Your task to perform on an android device: Open the downloads Image 0: 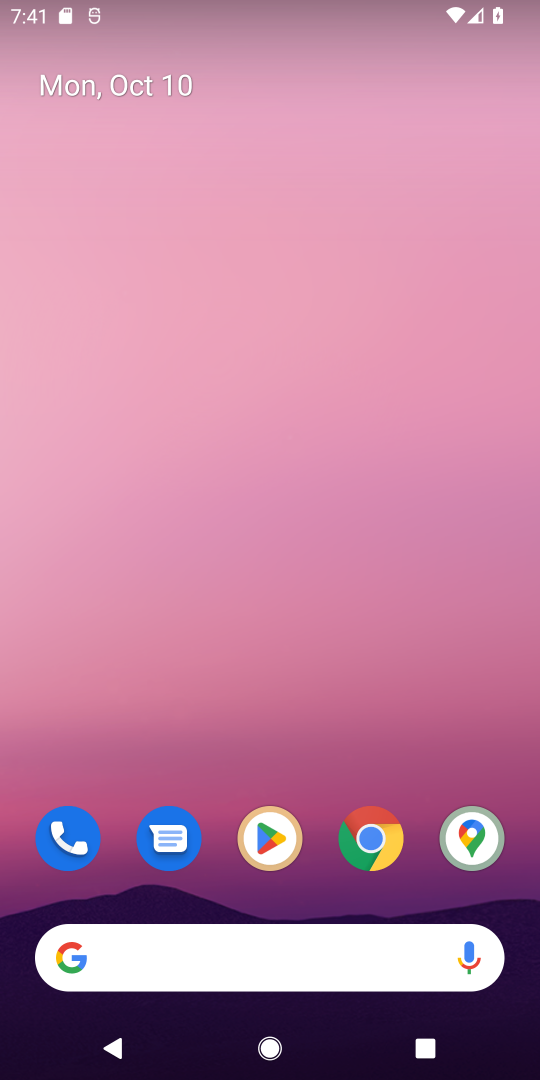
Step 0: click (373, 844)
Your task to perform on an android device: Open the downloads Image 1: 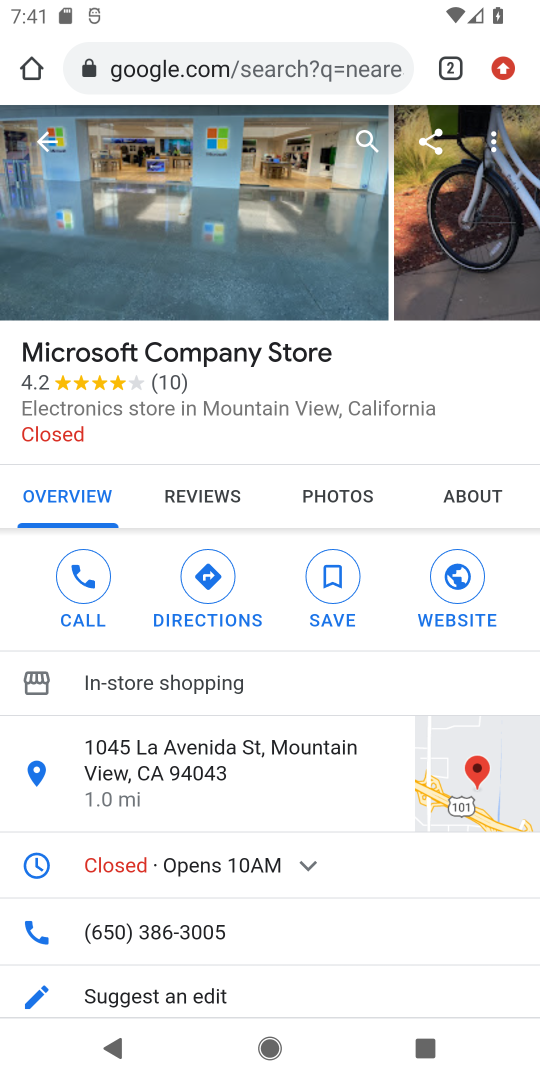
Step 1: click (499, 66)
Your task to perform on an android device: Open the downloads Image 2: 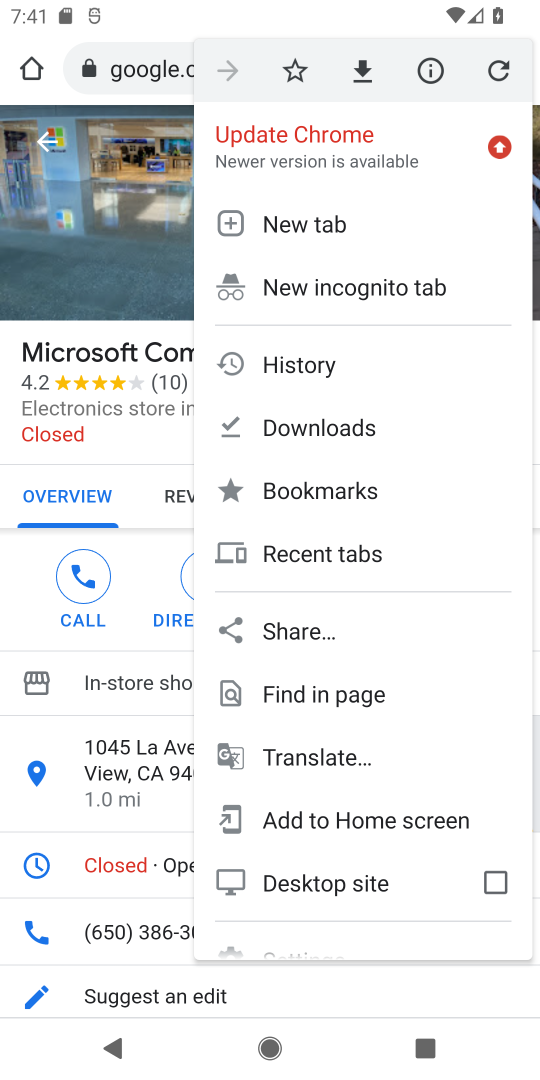
Step 2: click (296, 422)
Your task to perform on an android device: Open the downloads Image 3: 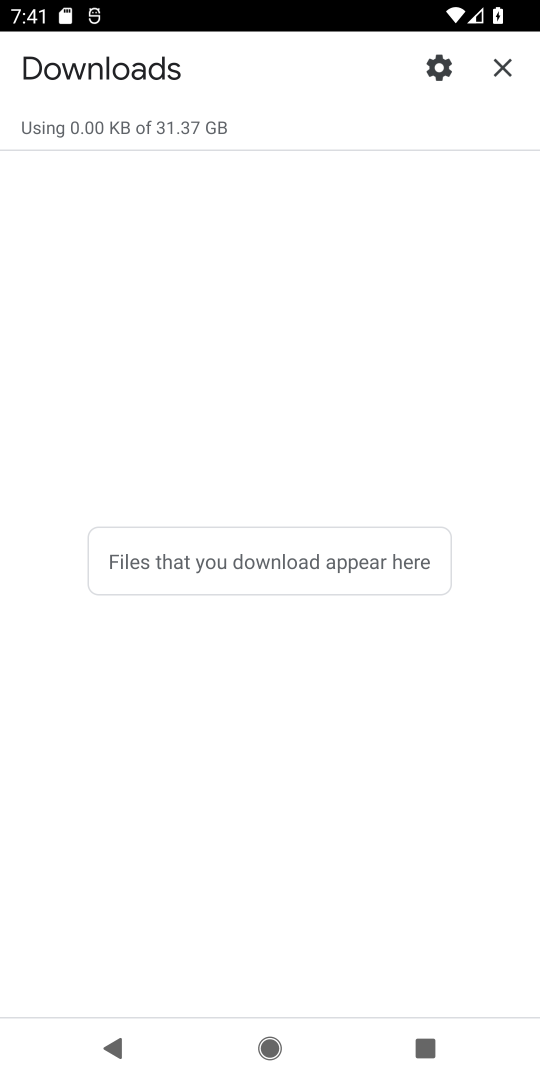
Step 3: task complete